Your task to perform on an android device: change timer sound Image 0: 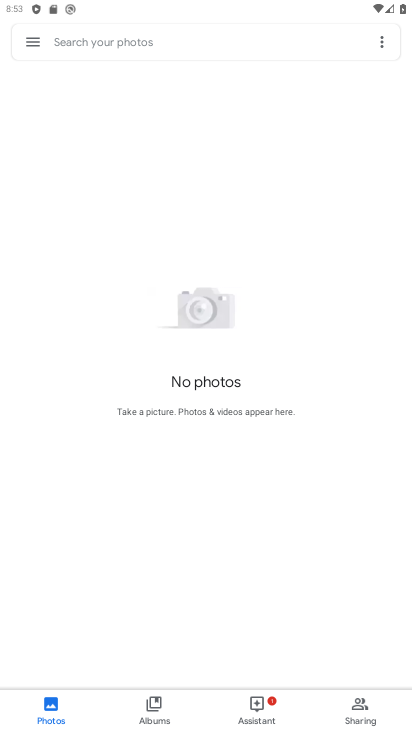
Step 0: press home button
Your task to perform on an android device: change timer sound Image 1: 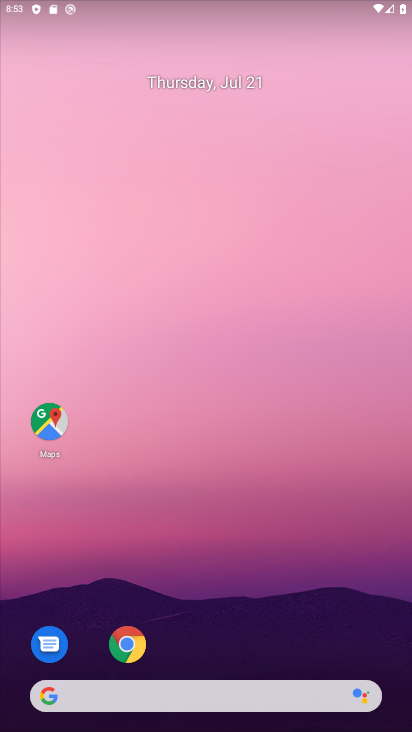
Step 1: drag from (261, 593) to (256, 82)
Your task to perform on an android device: change timer sound Image 2: 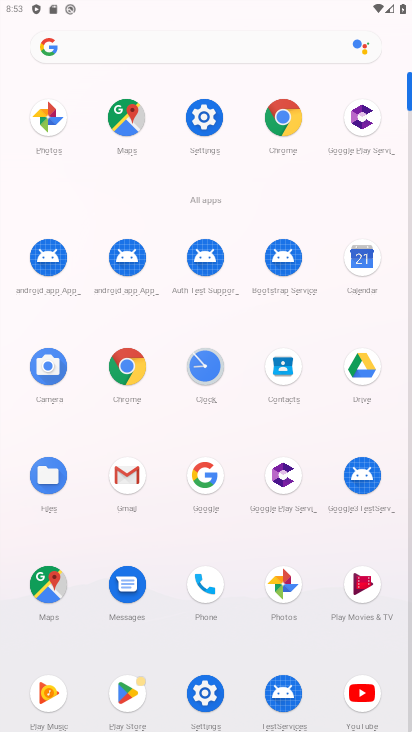
Step 2: click (198, 372)
Your task to perform on an android device: change timer sound Image 3: 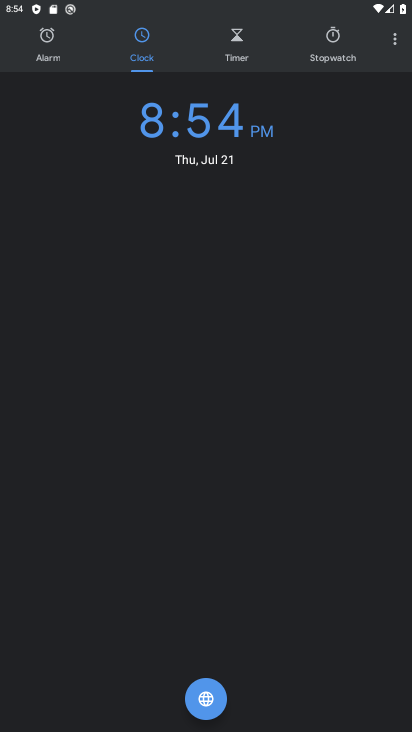
Step 3: click (386, 41)
Your task to perform on an android device: change timer sound Image 4: 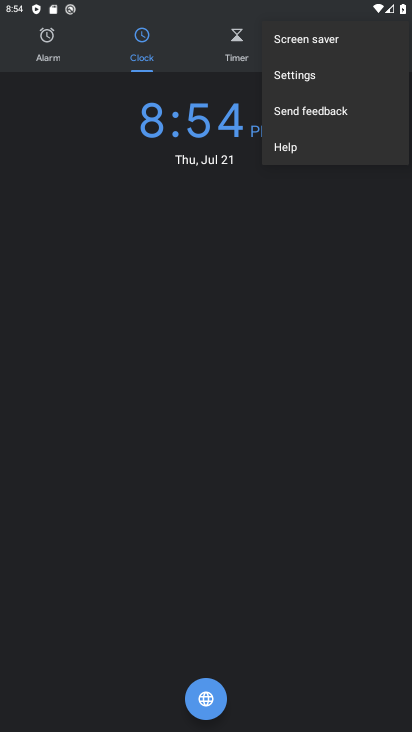
Step 4: click (302, 84)
Your task to perform on an android device: change timer sound Image 5: 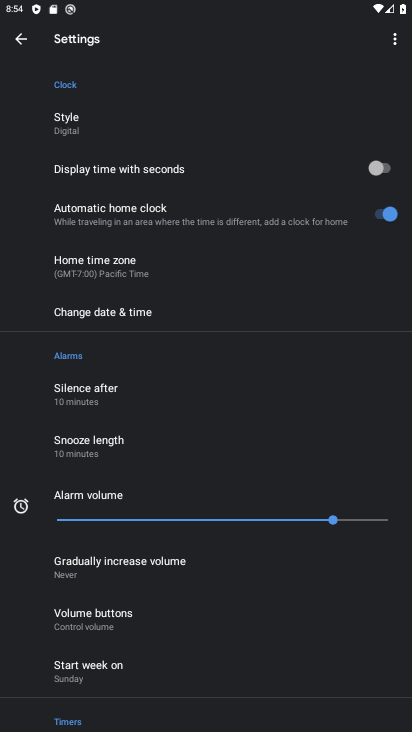
Step 5: drag from (155, 578) to (140, 251)
Your task to perform on an android device: change timer sound Image 6: 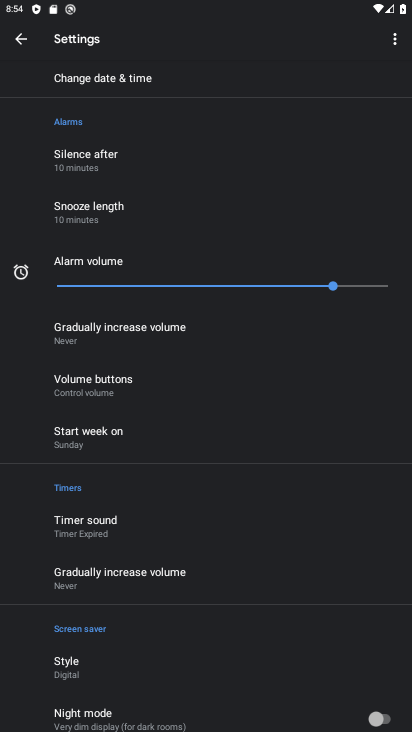
Step 6: click (86, 534)
Your task to perform on an android device: change timer sound Image 7: 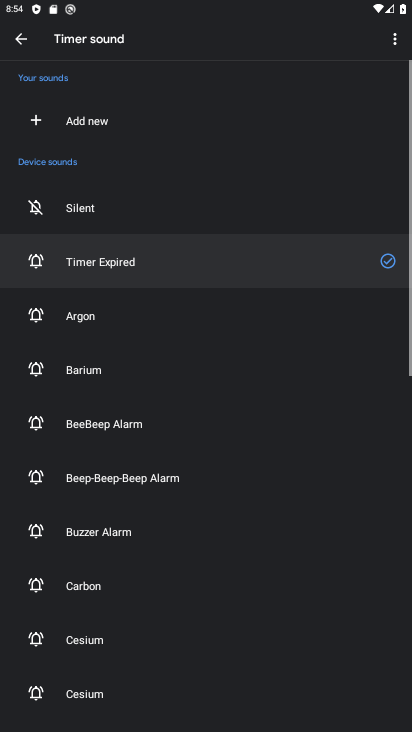
Step 7: click (101, 430)
Your task to perform on an android device: change timer sound Image 8: 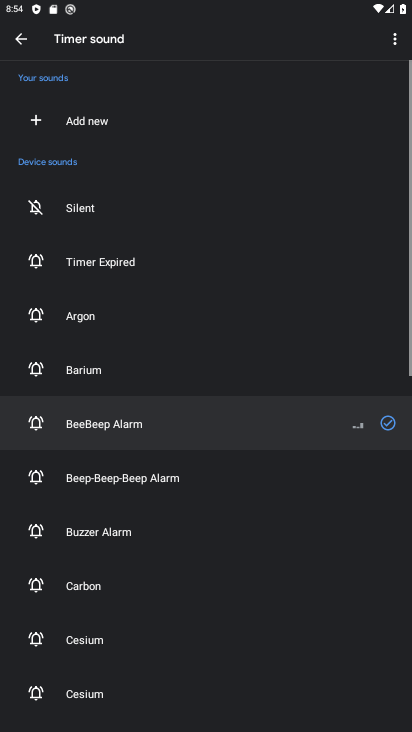
Step 8: task complete